Your task to perform on an android device: What's the weather? Image 0: 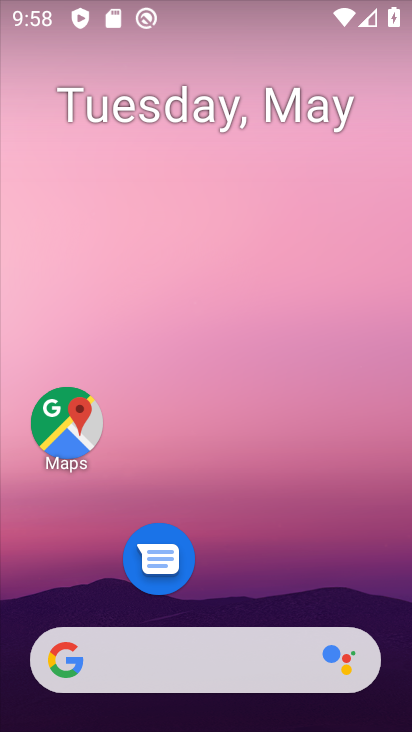
Step 0: drag from (304, 692) to (206, 246)
Your task to perform on an android device: What's the weather? Image 1: 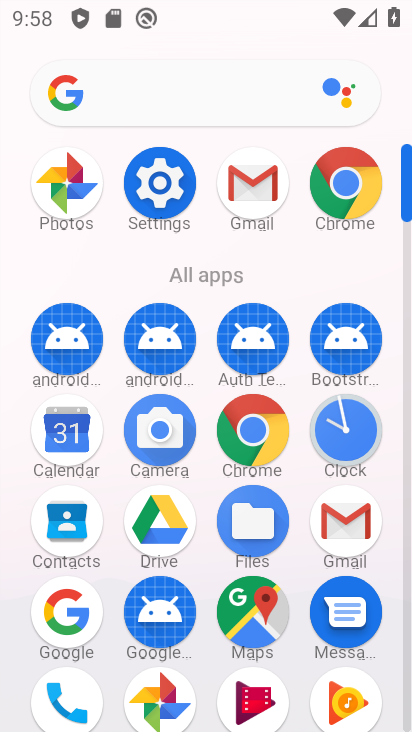
Step 1: press back button
Your task to perform on an android device: What's the weather? Image 2: 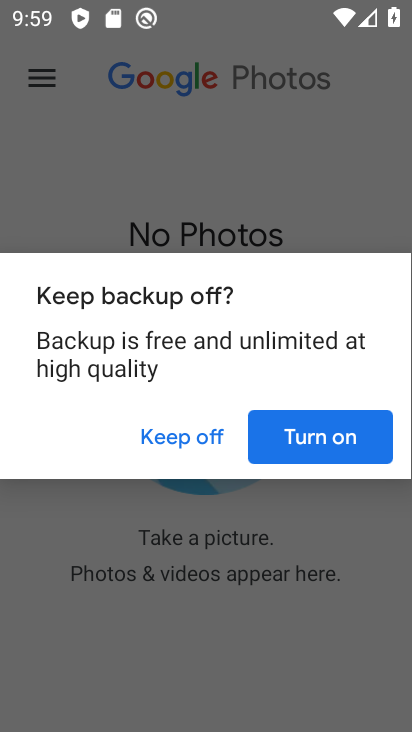
Step 2: click (186, 437)
Your task to perform on an android device: What's the weather? Image 3: 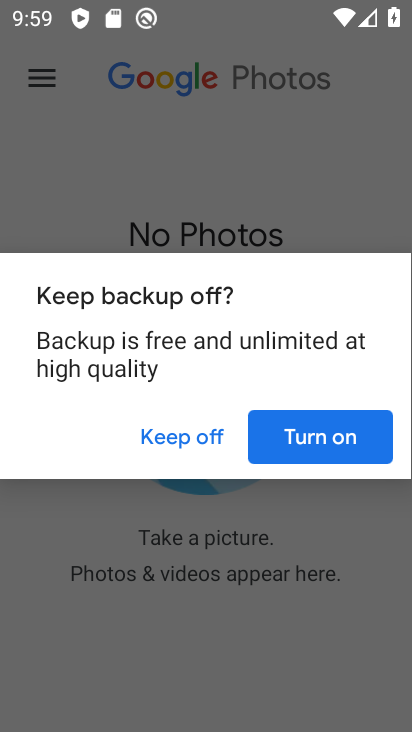
Step 3: click (186, 437)
Your task to perform on an android device: What's the weather? Image 4: 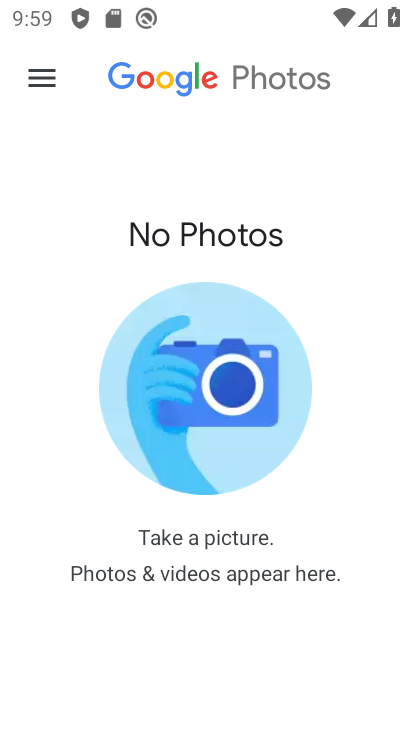
Step 4: task complete